Your task to perform on an android device: check out phone information Image 0: 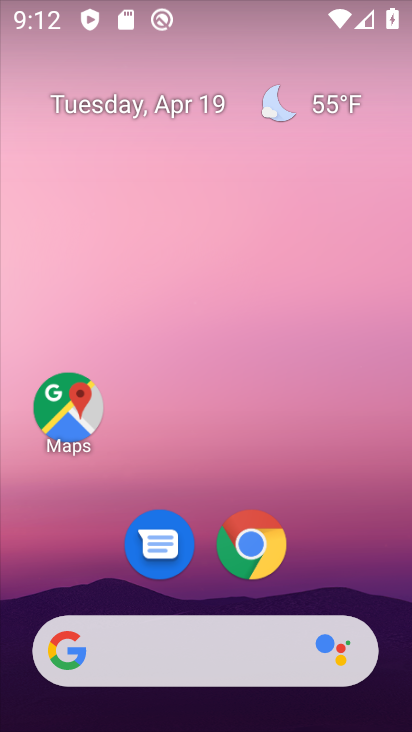
Step 0: drag from (375, 587) to (374, 111)
Your task to perform on an android device: check out phone information Image 1: 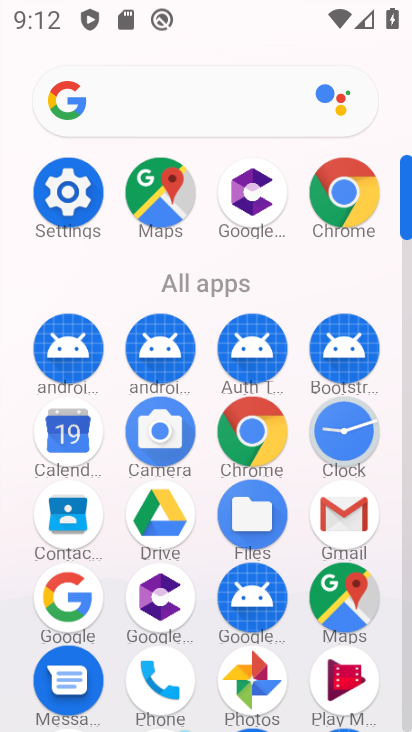
Step 1: drag from (398, 480) to (410, 225)
Your task to perform on an android device: check out phone information Image 2: 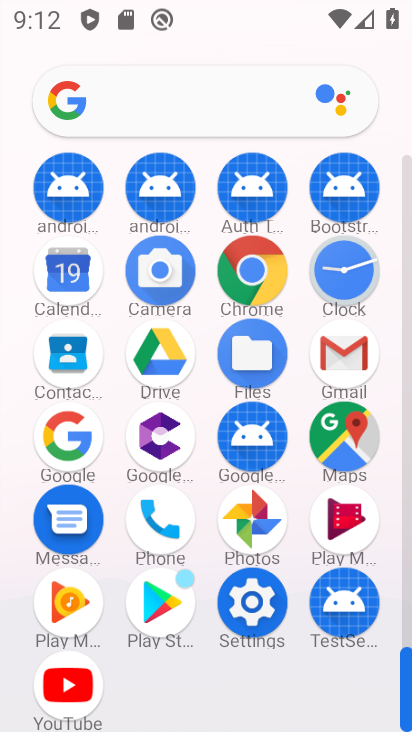
Step 2: click (171, 532)
Your task to perform on an android device: check out phone information Image 3: 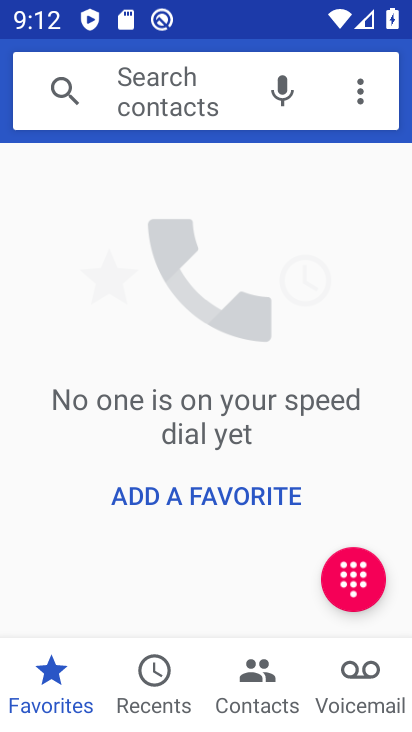
Step 3: task complete